Your task to perform on an android device: Open sound settings Image 0: 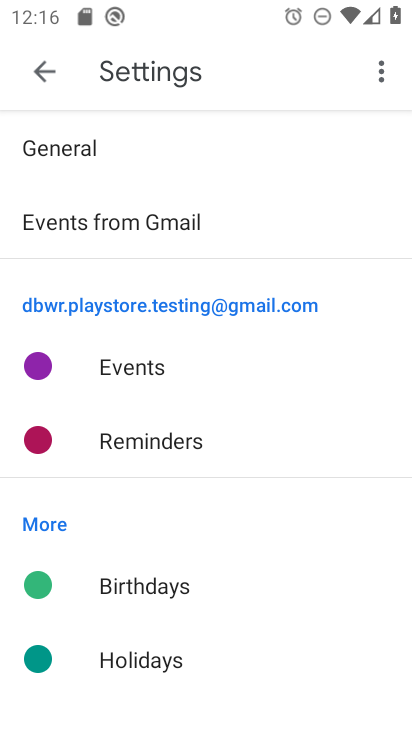
Step 0: press home button
Your task to perform on an android device: Open sound settings Image 1: 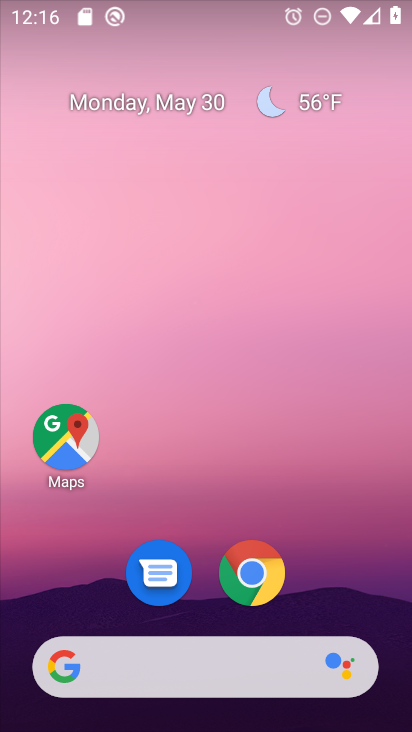
Step 1: drag from (270, 663) to (372, 0)
Your task to perform on an android device: Open sound settings Image 2: 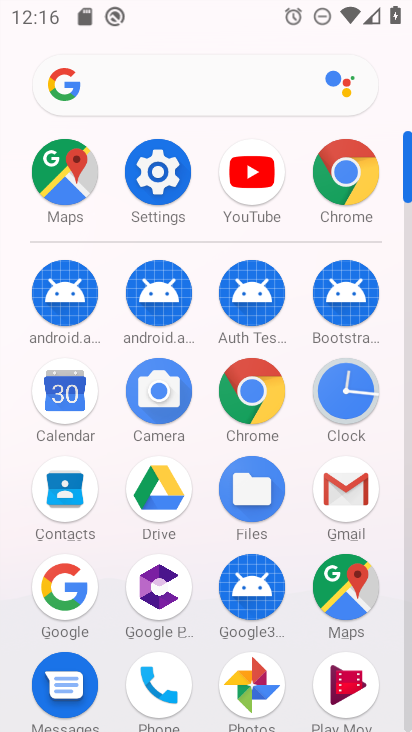
Step 2: click (299, 265)
Your task to perform on an android device: Open sound settings Image 3: 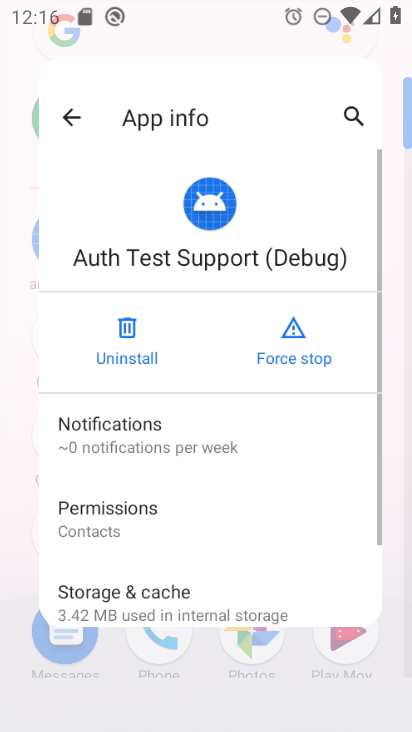
Step 3: click (181, 180)
Your task to perform on an android device: Open sound settings Image 4: 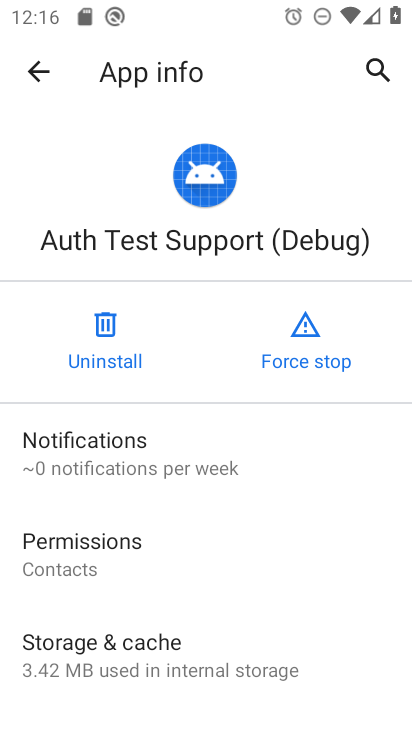
Step 4: press home button
Your task to perform on an android device: Open sound settings Image 5: 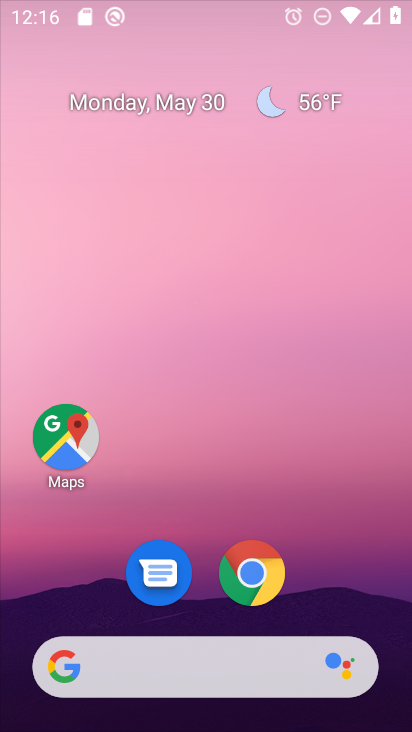
Step 5: drag from (142, 540) to (222, 5)
Your task to perform on an android device: Open sound settings Image 6: 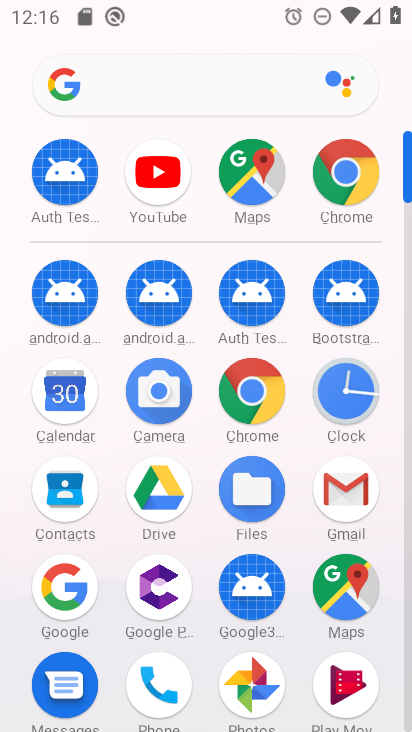
Step 6: drag from (274, 585) to (350, 173)
Your task to perform on an android device: Open sound settings Image 7: 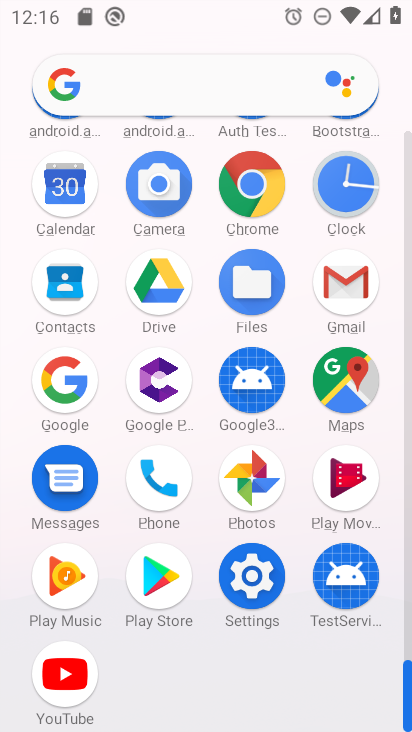
Step 7: click (270, 563)
Your task to perform on an android device: Open sound settings Image 8: 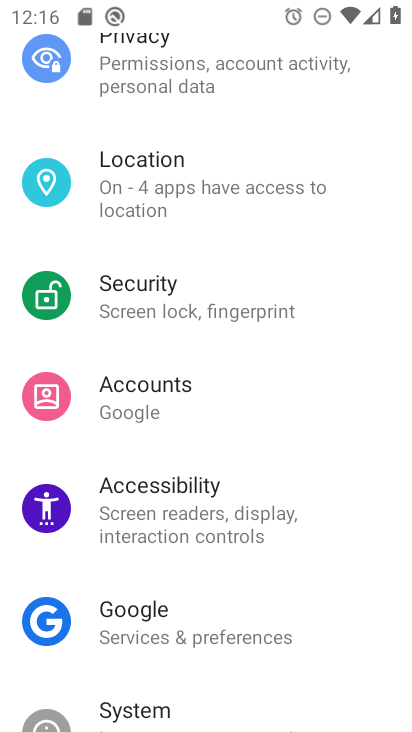
Step 8: drag from (230, 273) to (178, 696)
Your task to perform on an android device: Open sound settings Image 9: 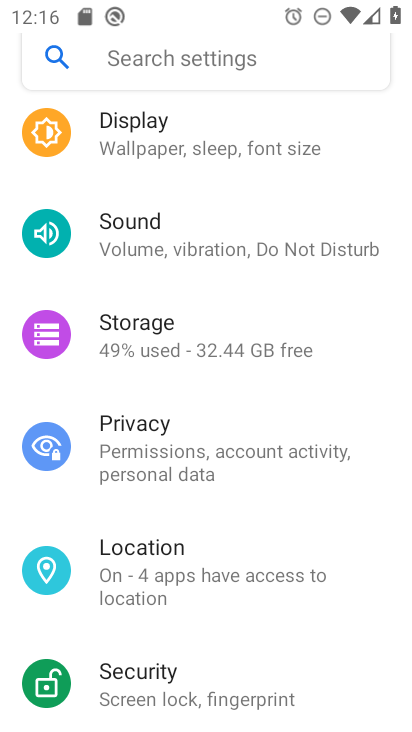
Step 9: click (230, 226)
Your task to perform on an android device: Open sound settings Image 10: 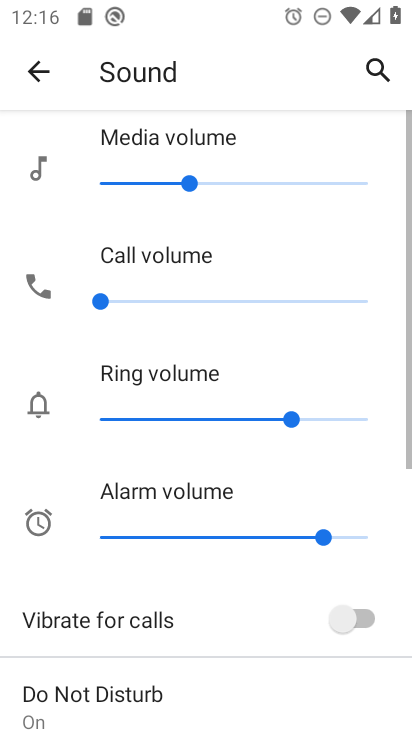
Step 10: task complete